Your task to perform on an android device: set default search engine in the chrome app Image 0: 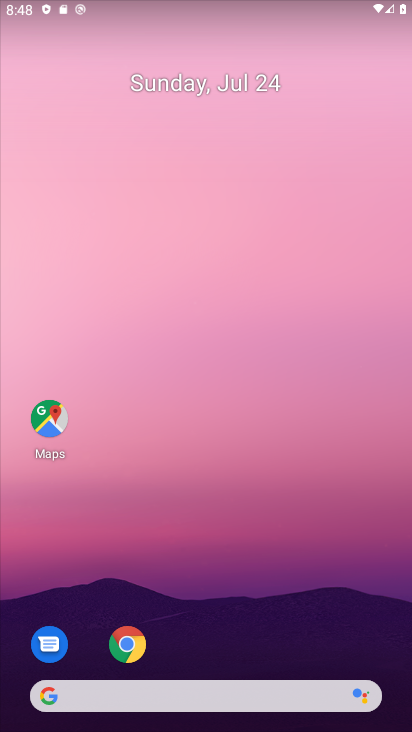
Step 0: drag from (299, 642) to (188, 210)
Your task to perform on an android device: set default search engine in the chrome app Image 1: 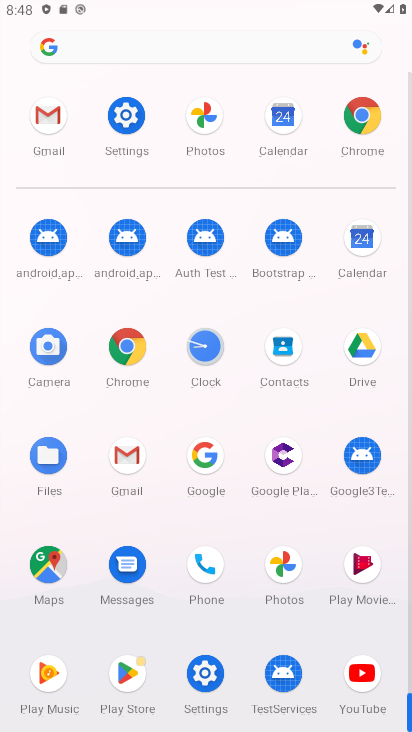
Step 1: click (366, 106)
Your task to perform on an android device: set default search engine in the chrome app Image 2: 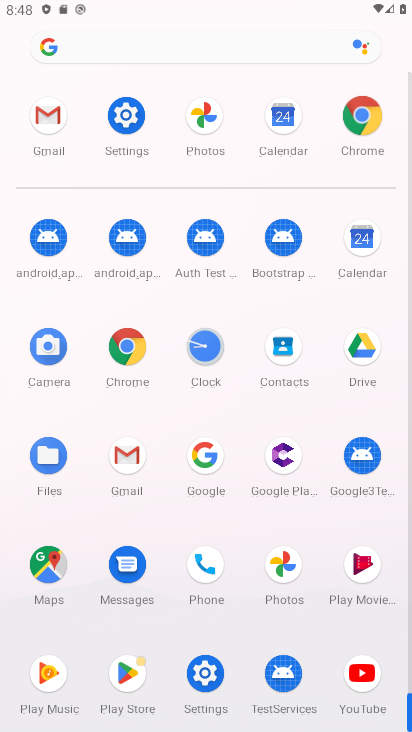
Step 2: click (364, 107)
Your task to perform on an android device: set default search engine in the chrome app Image 3: 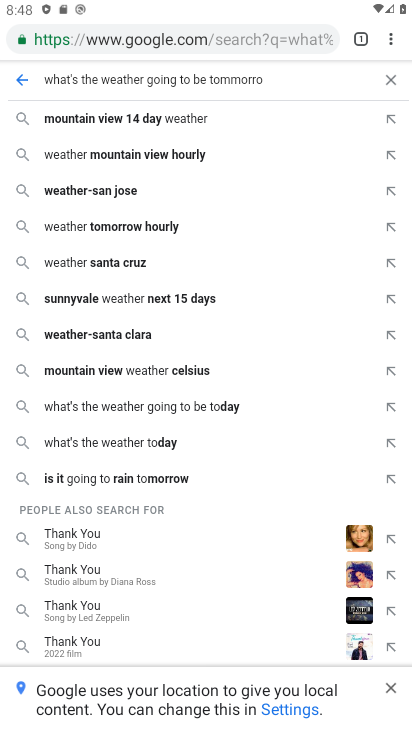
Step 3: press back button
Your task to perform on an android device: set default search engine in the chrome app Image 4: 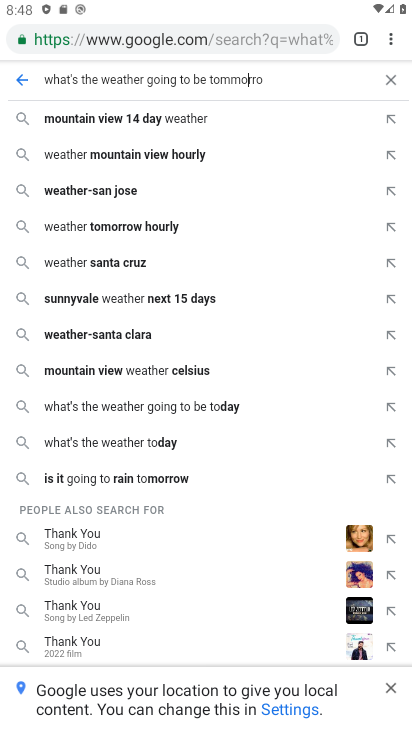
Step 4: press back button
Your task to perform on an android device: set default search engine in the chrome app Image 5: 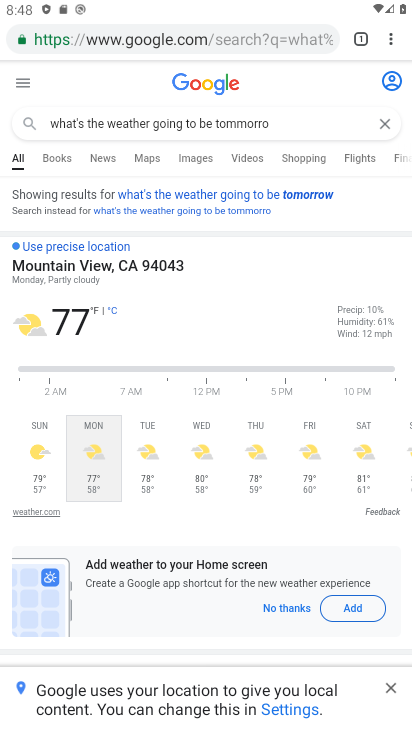
Step 5: press back button
Your task to perform on an android device: set default search engine in the chrome app Image 6: 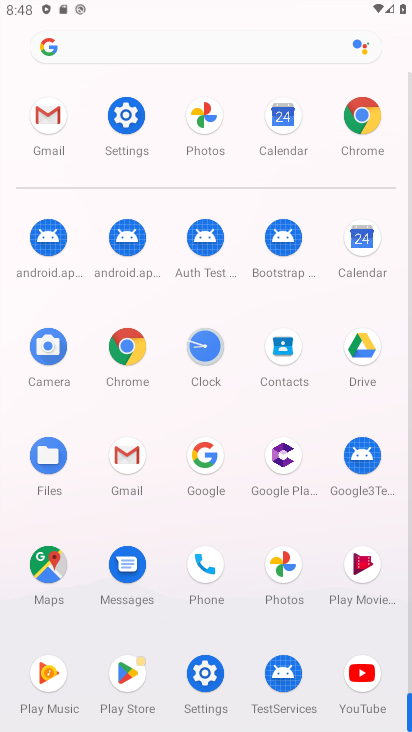
Step 6: click (127, 350)
Your task to perform on an android device: set default search engine in the chrome app Image 7: 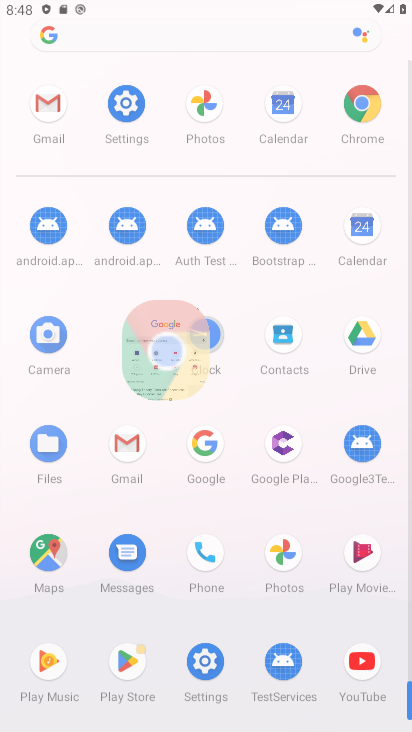
Step 7: click (125, 350)
Your task to perform on an android device: set default search engine in the chrome app Image 8: 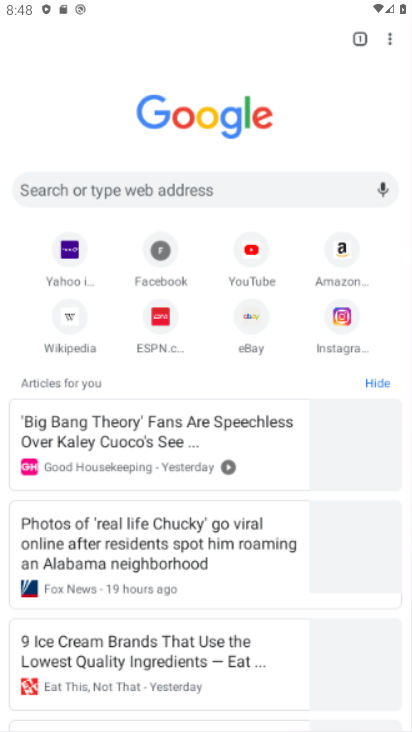
Step 8: click (127, 349)
Your task to perform on an android device: set default search engine in the chrome app Image 9: 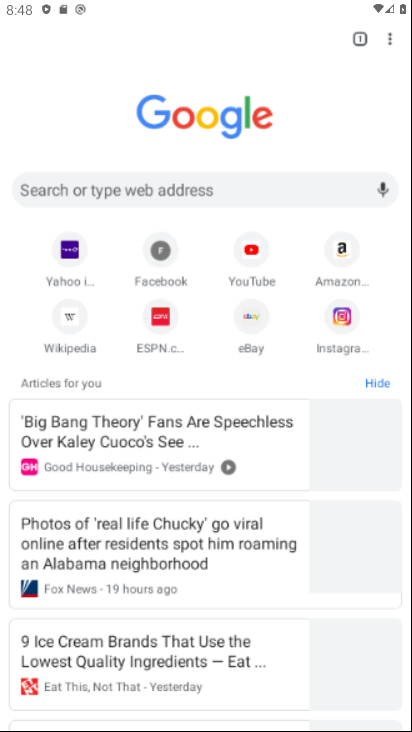
Step 9: click (129, 349)
Your task to perform on an android device: set default search engine in the chrome app Image 10: 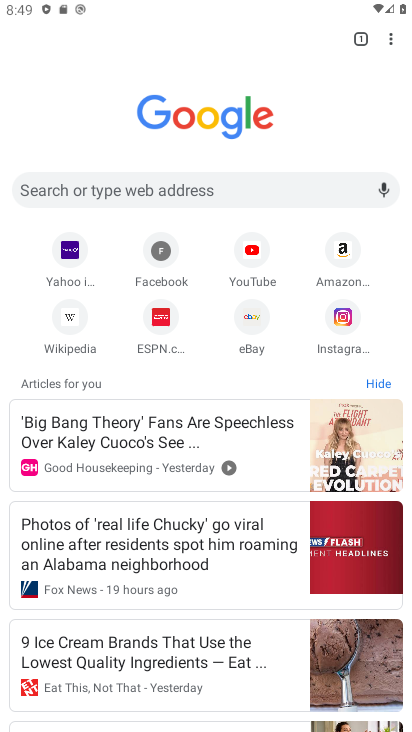
Step 10: drag from (394, 36) to (272, 307)
Your task to perform on an android device: set default search engine in the chrome app Image 11: 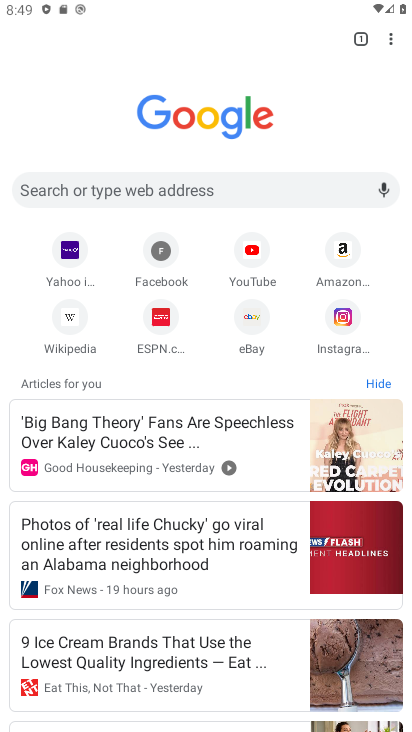
Step 11: drag from (388, 46) to (241, 323)
Your task to perform on an android device: set default search engine in the chrome app Image 12: 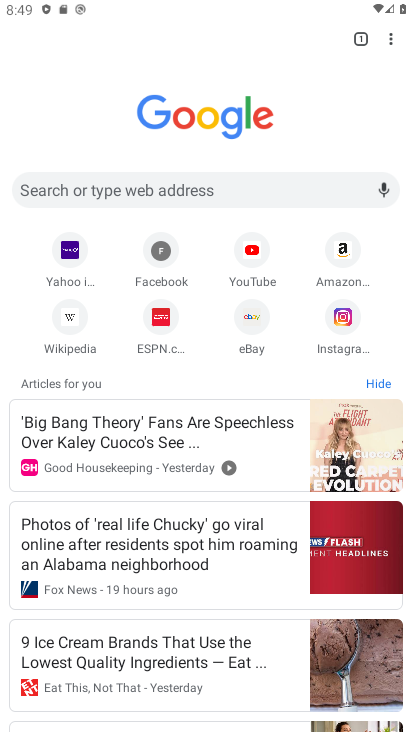
Step 12: click (245, 316)
Your task to perform on an android device: set default search engine in the chrome app Image 13: 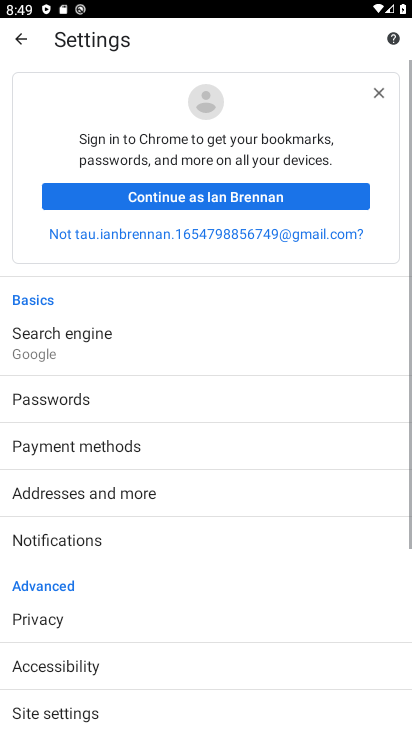
Step 13: click (44, 341)
Your task to perform on an android device: set default search engine in the chrome app Image 14: 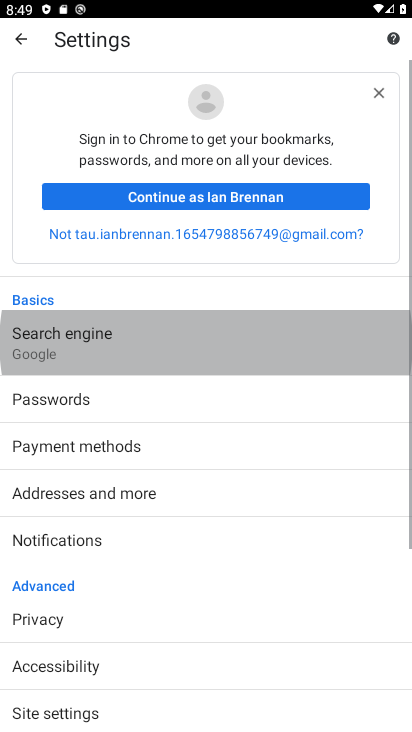
Step 14: click (42, 342)
Your task to perform on an android device: set default search engine in the chrome app Image 15: 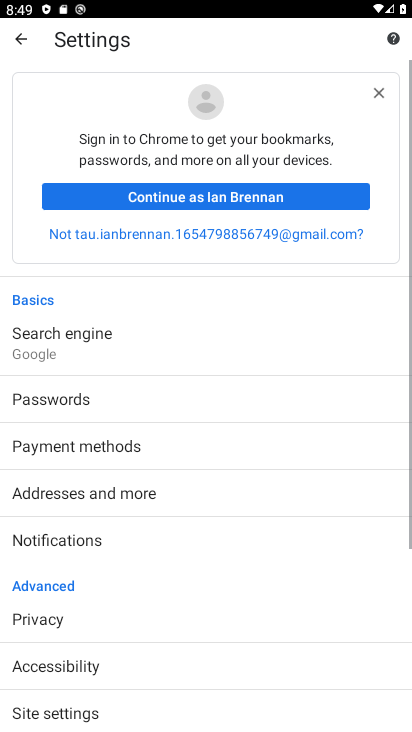
Step 15: click (44, 344)
Your task to perform on an android device: set default search engine in the chrome app Image 16: 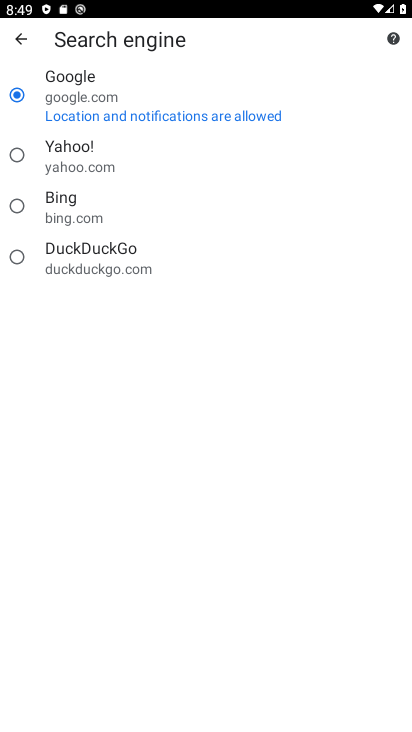
Step 16: task complete